Your task to perform on an android device: see tabs open on other devices in the chrome app Image 0: 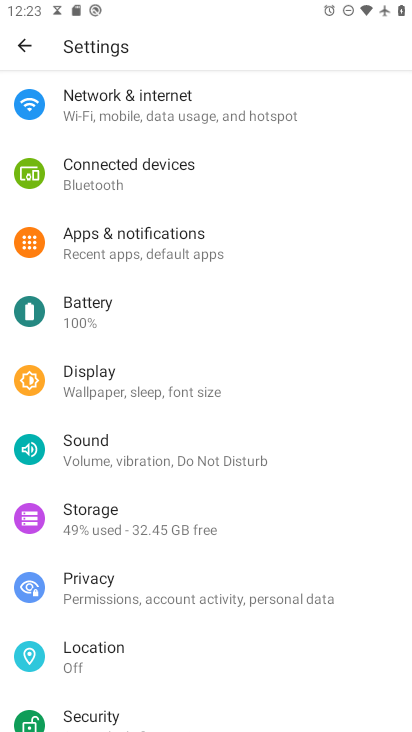
Step 0: press home button
Your task to perform on an android device: see tabs open on other devices in the chrome app Image 1: 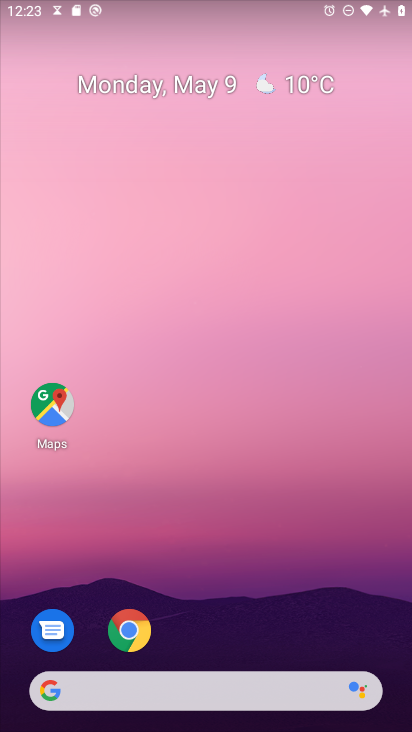
Step 1: click (140, 627)
Your task to perform on an android device: see tabs open on other devices in the chrome app Image 2: 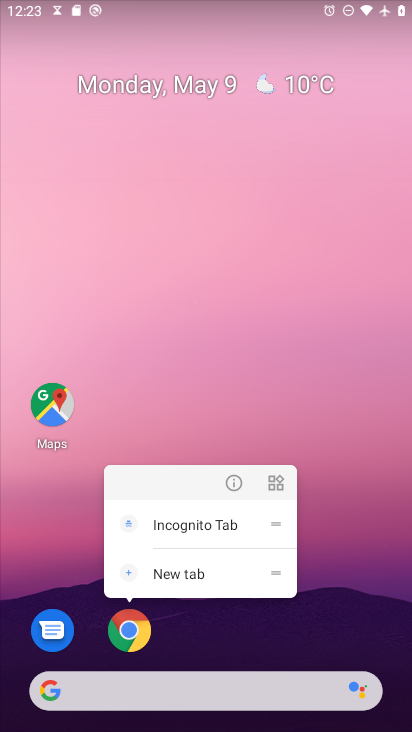
Step 2: click (138, 628)
Your task to perform on an android device: see tabs open on other devices in the chrome app Image 3: 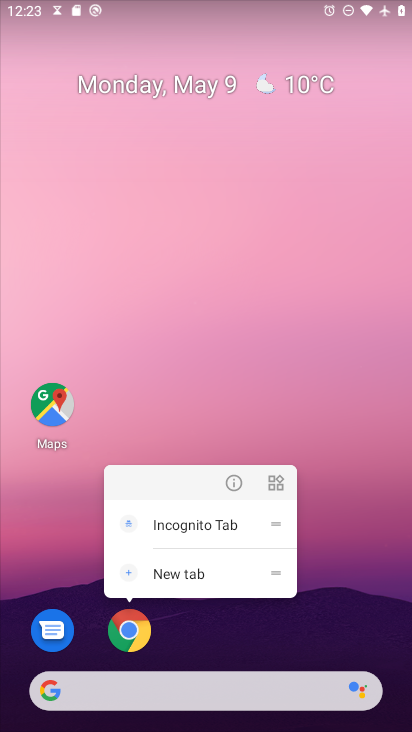
Step 3: click (129, 634)
Your task to perform on an android device: see tabs open on other devices in the chrome app Image 4: 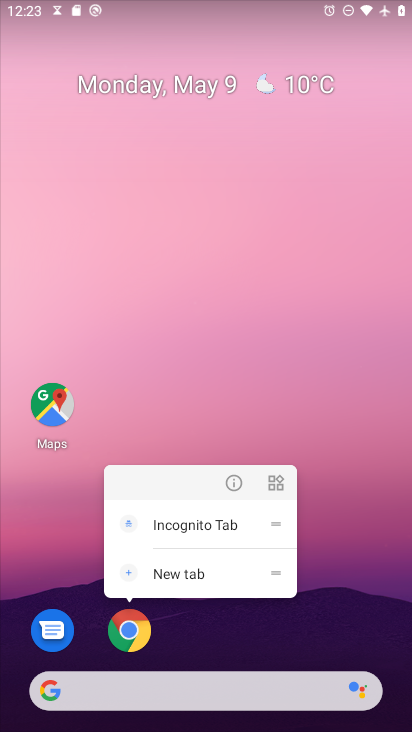
Step 4: click (126, 640)
Your task to perform on an android device: see tabs open on other devices in the chrome app Image 5: 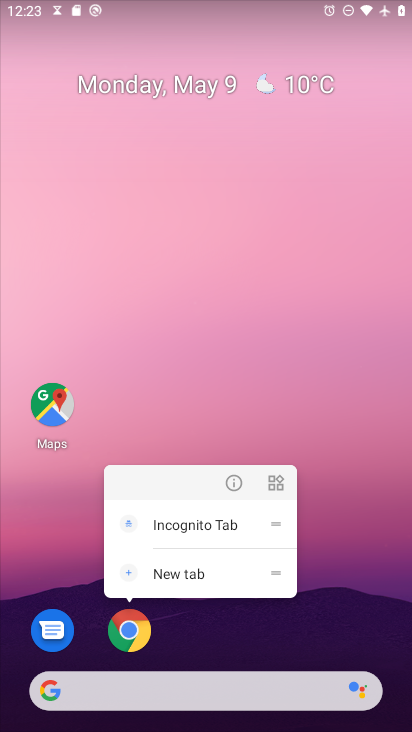
Step 5: click (131, 630)
Your task to perform on an android device: see tabs open on other devices in the chrome app Image 6: 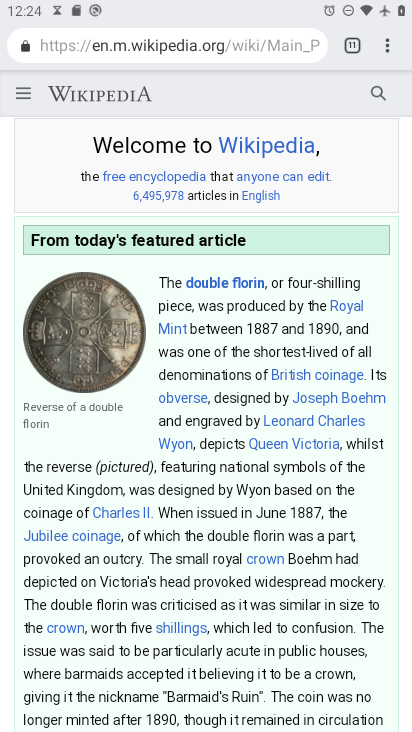
Step 6: task complete